Your task to perform on an android device: empty trash in the gmail app Image 0: 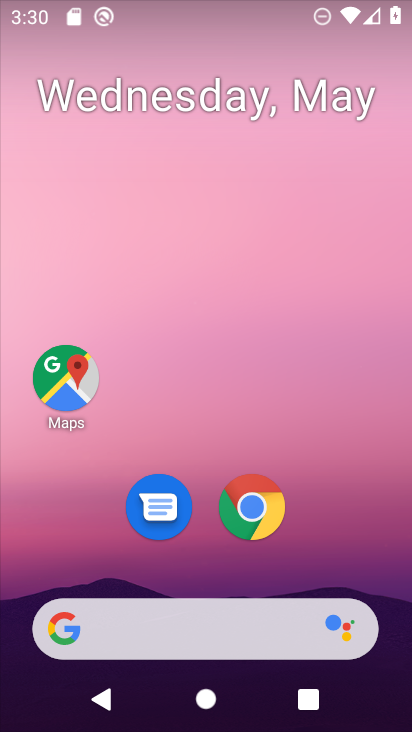
Step 0: drag from (186, 580) to (254, 25)
Your task to perform on an android device: empty trash in the gmail app Image 1: 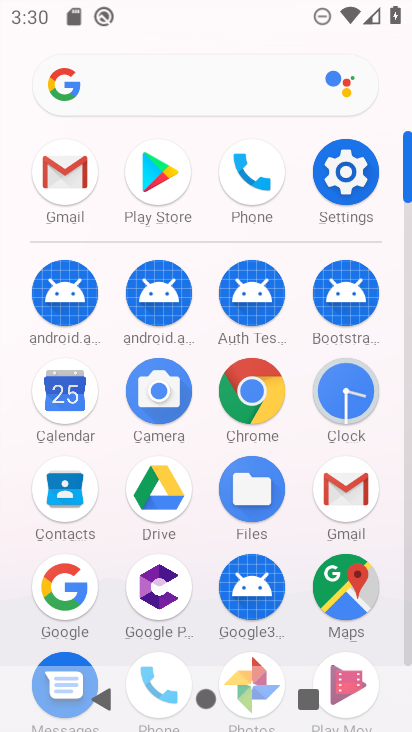
Step 1: click (336, 490)
Your task to perform on an android device: empty trash in the gmail app Image 2: 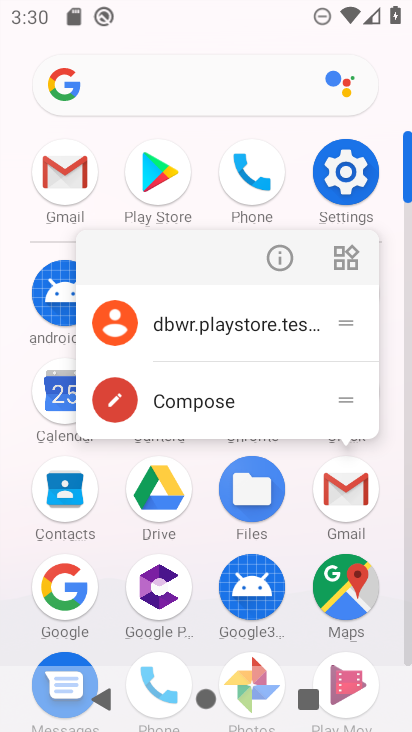
Step 2: click (336, 490)
Your task to perform on an android device: empty trash in the gmail app Image 3: 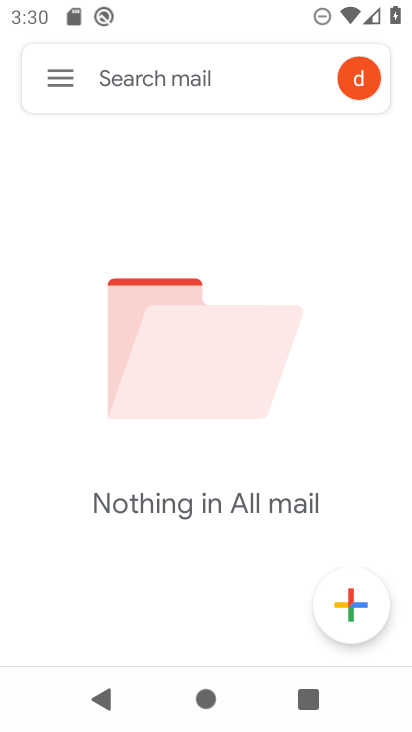
Step 3: click (53, 71)
Your task to perform on an android device: empty trash in the gmail app Image 4: 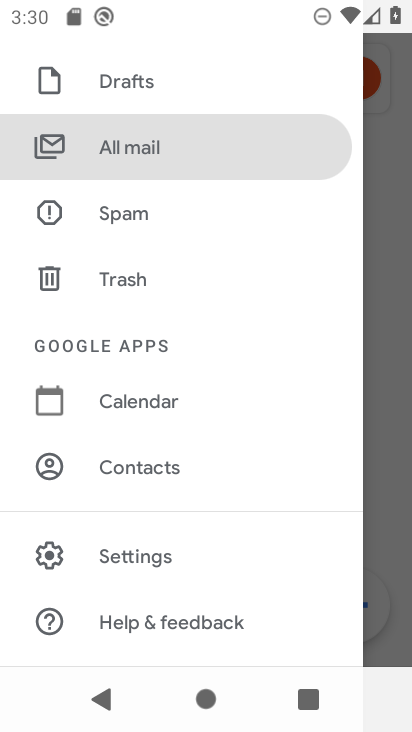
Step 4: click (118, 285)
Your task to perform on an android device: empty trash in the gmail app Image 5: 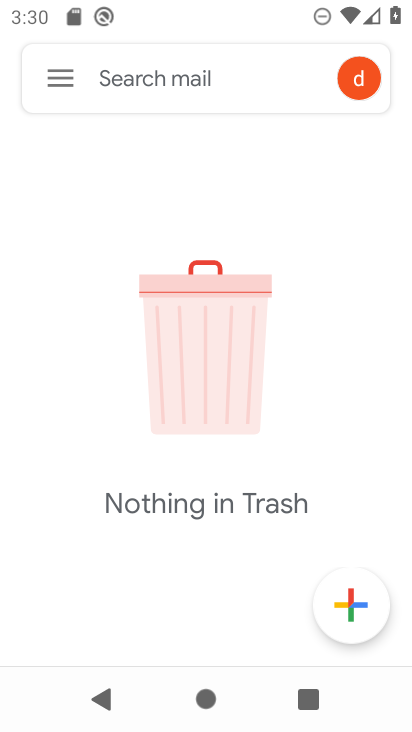
Step 5: task complete